Your task to perform on an android device: Open eBay Image 0: 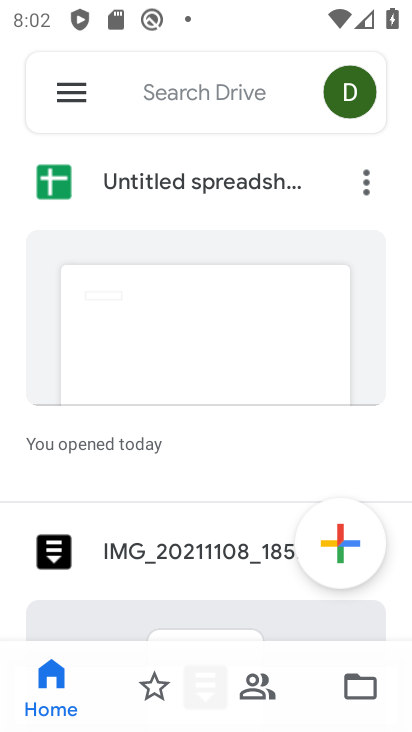
Step 0: press home button
Your task to perform on an android device: Open eBay Image 1: 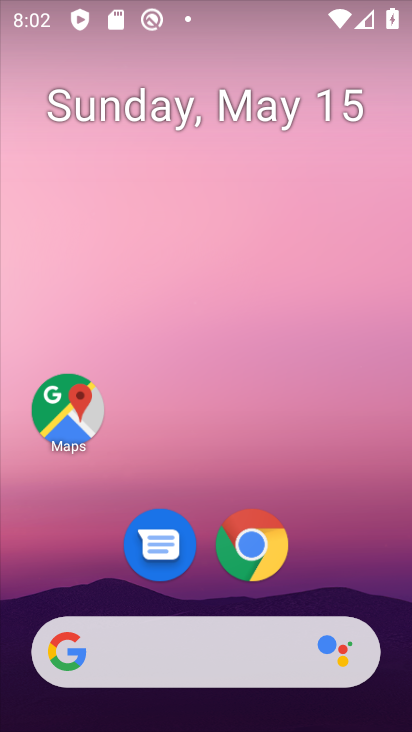
Step 1: drag from (369, 588) to (383, 99)
Your task to perform on an android device: Open eBay Image 2: 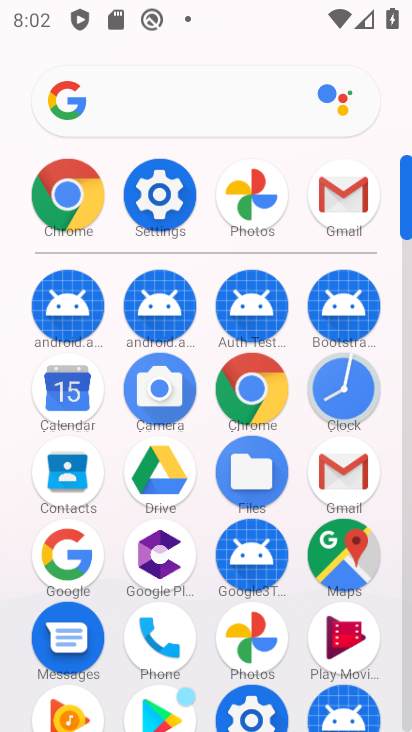
Step 2: click (251, 375)
Your task to perform on an android device: Open eBay Image 3: 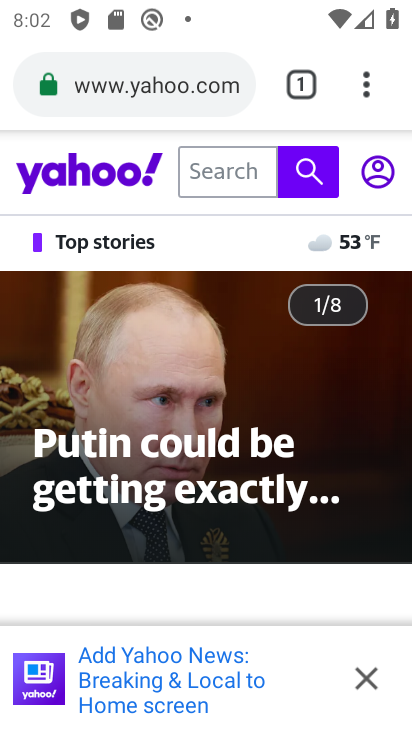
Step 3: press back button
Your task to perform on an android device: Open eBay Image 4: 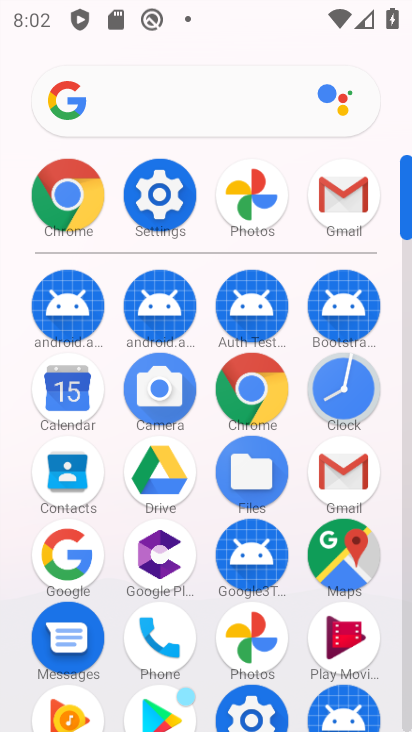
Step 4: click (270, 400)
Your task to perform on an android device: Open eBay Image 5: 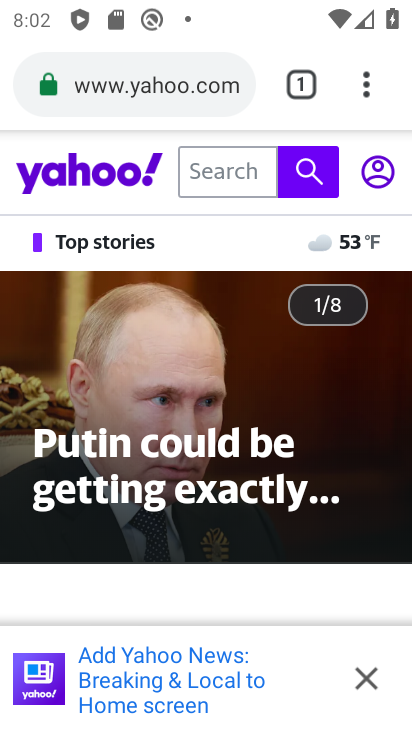
Step 5: click (109, 70)
Your task to perform on an android device: Open eBay Image 6: 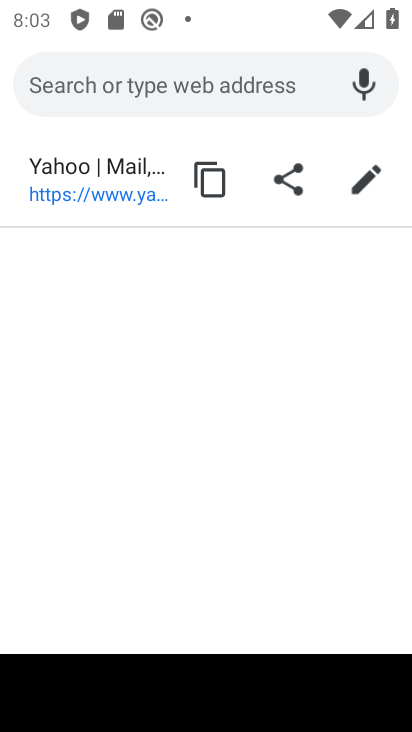
Step 6: type "ebay"
Your task to perform on an android device: Open eBay Image 7: 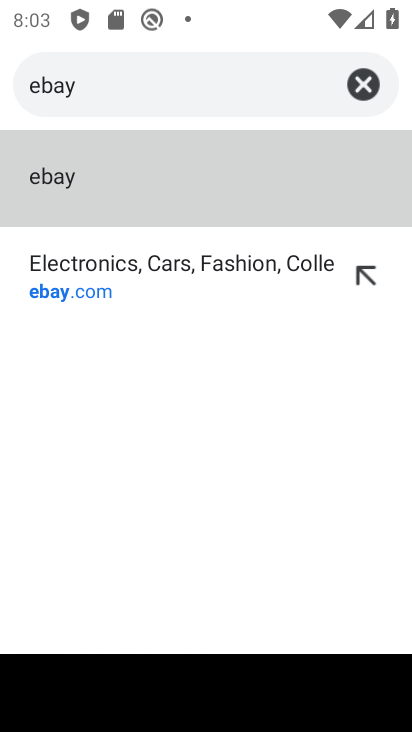
Step 7: click (109, 182)
Your task to perform on an android device: Open eBay Image 8: 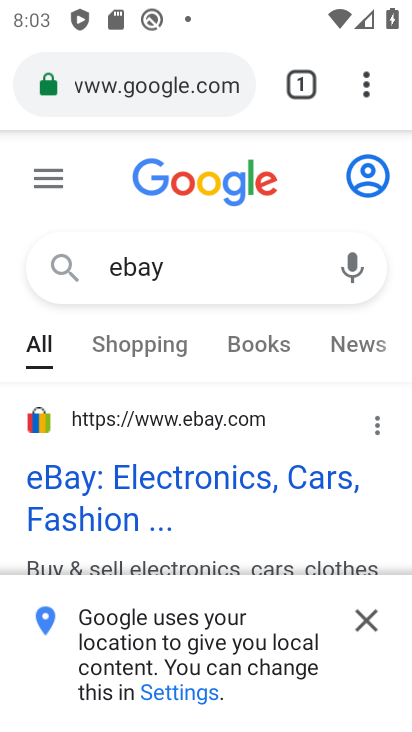
Step 8: task complete